Your task to perform on an android device: change timer sound Image 0: 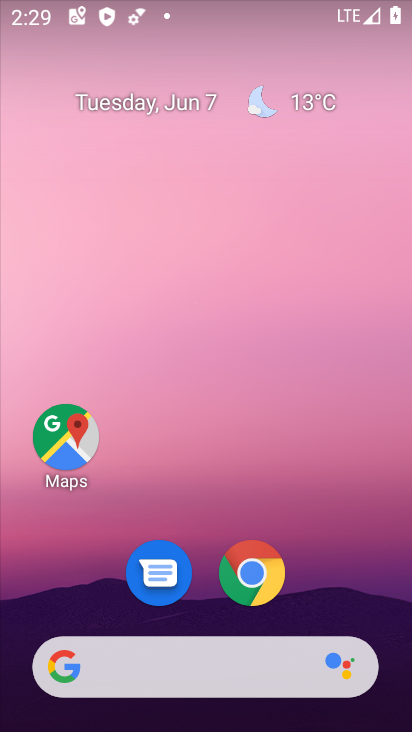
Step 0: drag from (363, 362) to (370, 3)
Your task to perform on an android device: change timer sound Image 1: 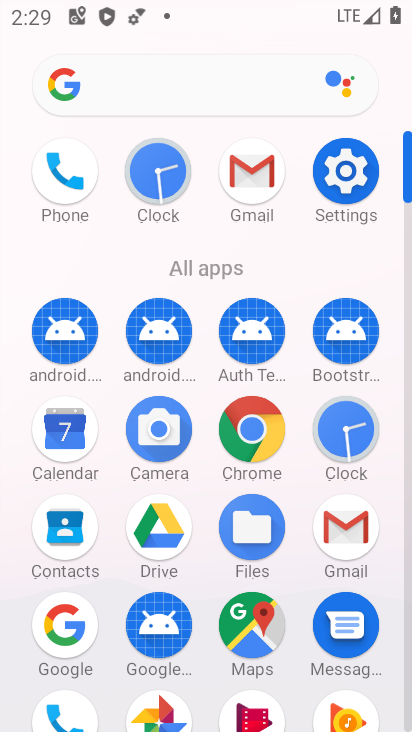
Step 1: click (333, 439)
Your task to perform on an android device: change timer sound Image 2: 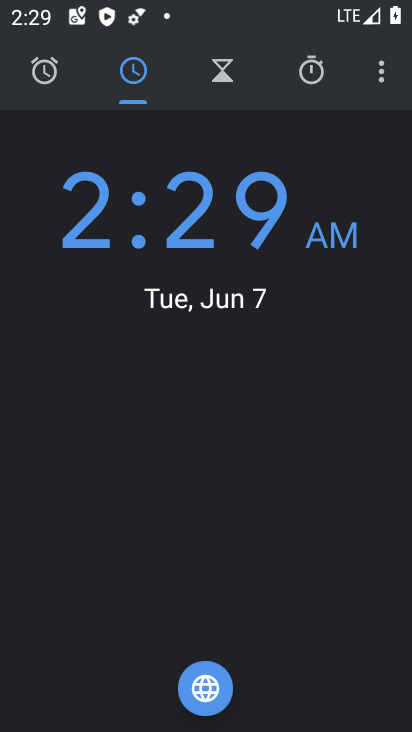
Step 2: click (390, 72)
Your task to perform on an android device: change timer sound Image 3: 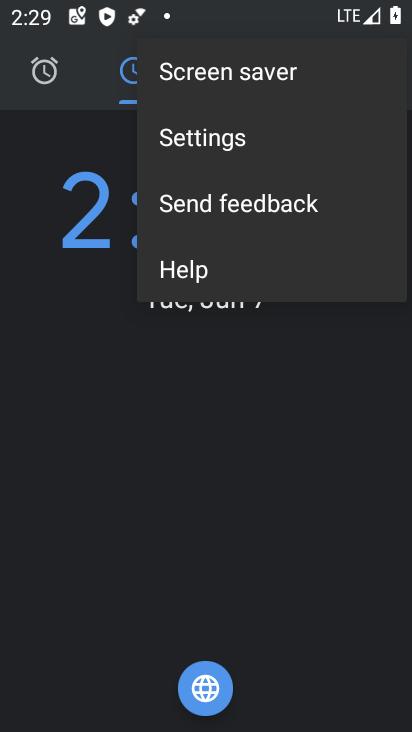
Step 3: click (202, 139)
Your task to perform on an android device: change timer sound Image 4: 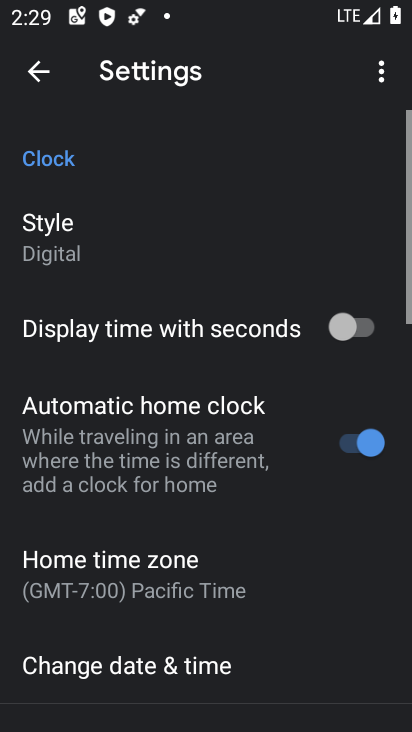
Step 4: drag from (195, 577) to (265, 82)
Your task to perform on an android device: change timer sound Image 5: 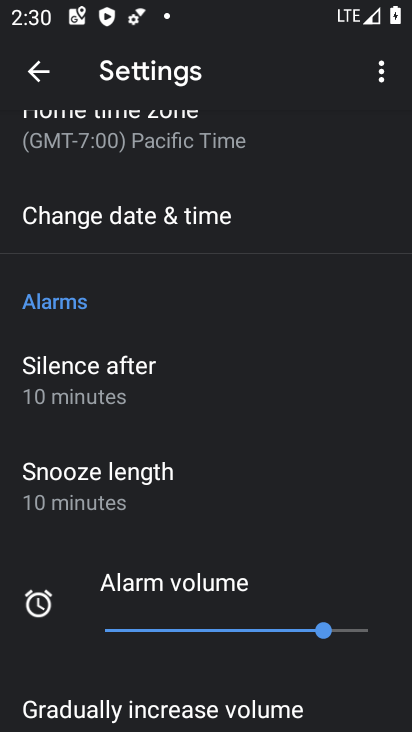
Step 5: drag from (101, 634) to (111, 258)
Your task to perform on an android device: change timer sound Image 6: 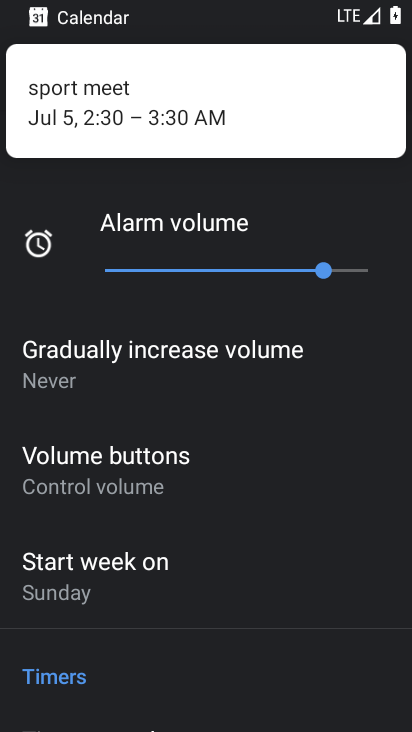
Step 6: drag from (134, 594) to (142, 294)
Your task to perform on an android device: change timer sound Image 7: 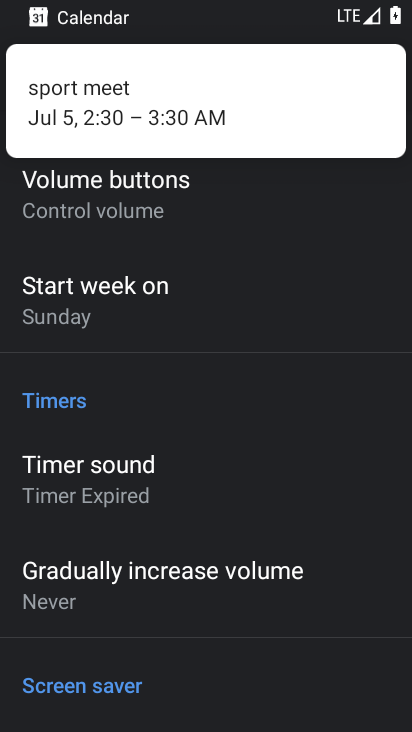
Step 7: click (124, 460)
Your task to perform on an android device: change timer sound Image 8: 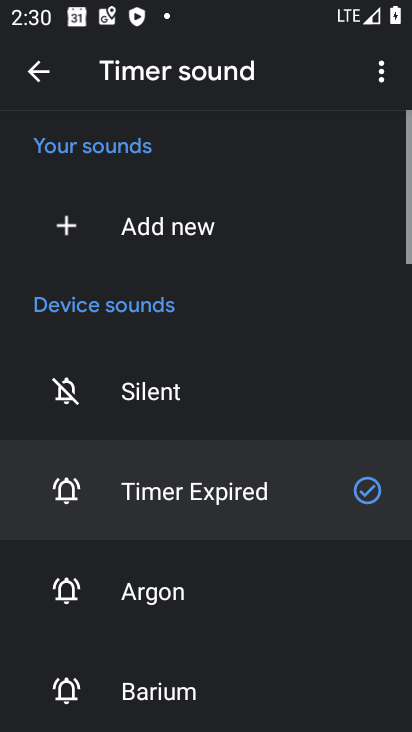
Step 8: click (154, 616)
Your task to perform on an android device: change timer sound Image 9: 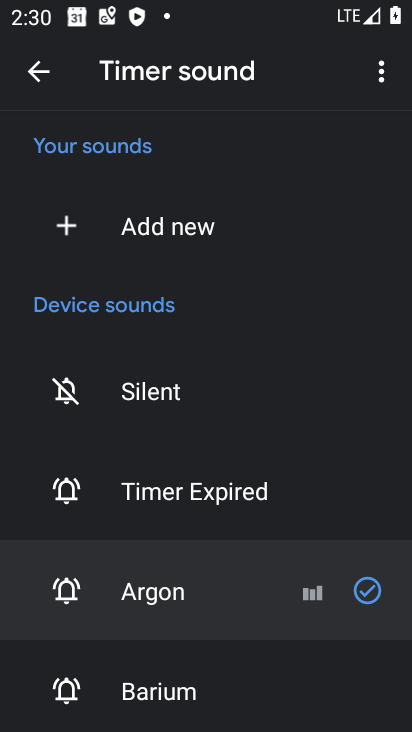
Step 9: task complete